Your task to perform on an android device: Open eBay Image 0: 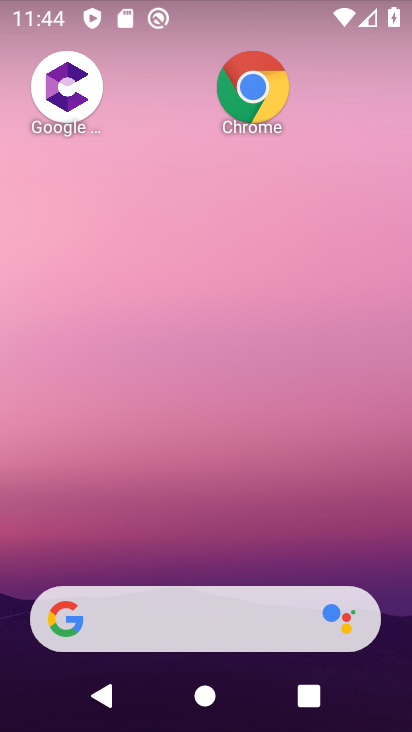
Step 0: click (256, 87)
Your task to perform on an android device: Open eBay Image 1: 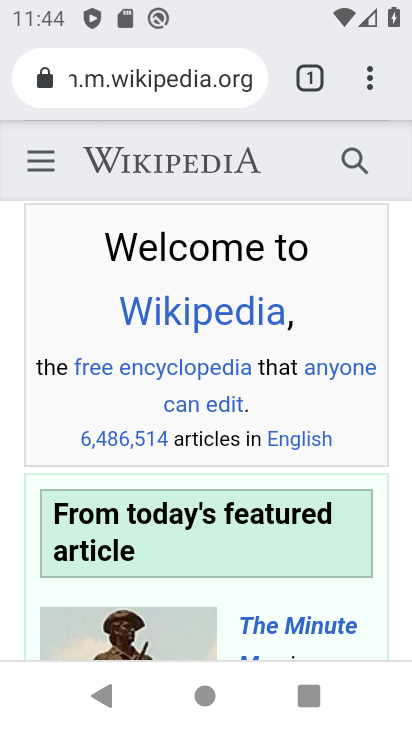
Step 1: click (369, 83)
Your task to perform on an android device: Open eBay Image 2: 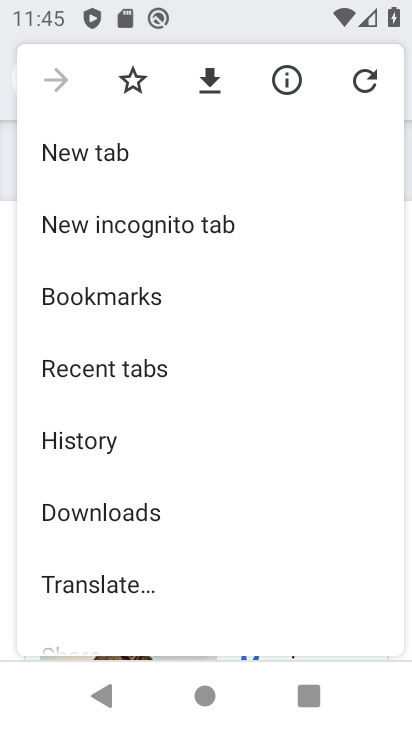
Step 2: click (72, 150)
Your task to perform on an android device: Open eBay Image 3: 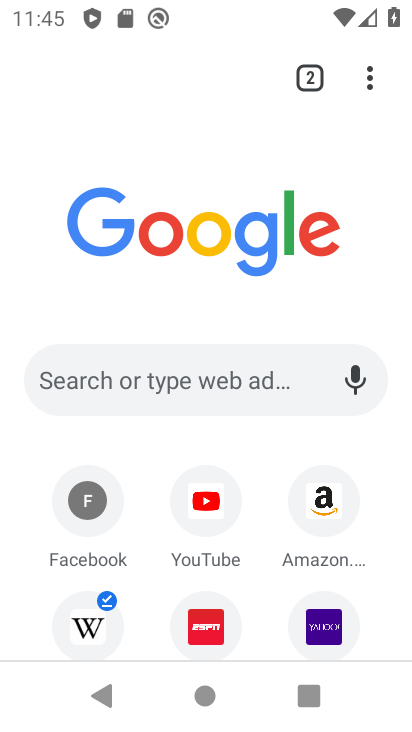
Step 3: drag from (142, 534) to (148, 120)
Your task to perform on an android device: Open eBay Image 4: 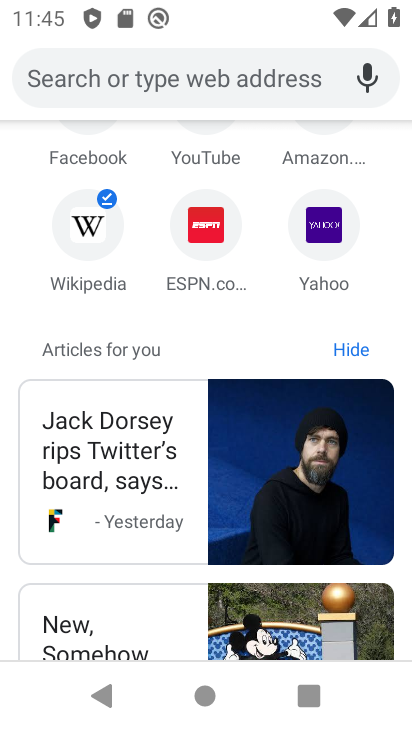
Step 4: drag from (138, 254) to (146, 637)
Your task to perform on an android device: Open eBay Image 5: 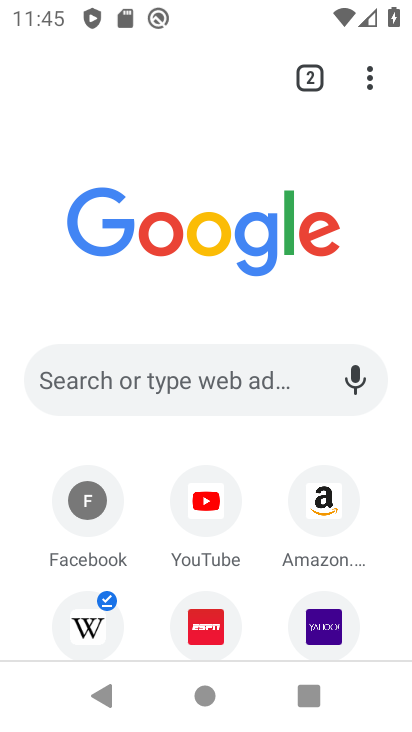
Step 5: click (189, 372)
Your task to perform on an android device: Open eBay Image 6: 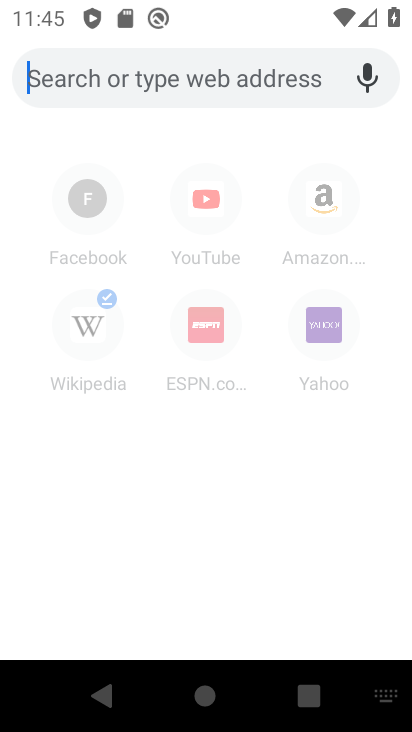
Step 6: type "ebay"
Your task to perform on an android device: Open eBay Image 7: 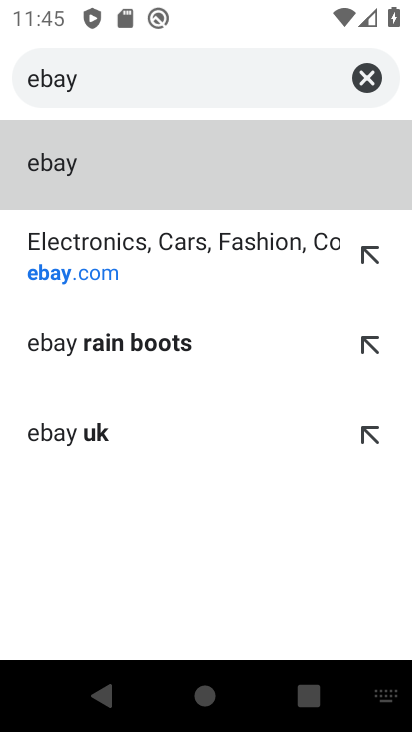
Step 7: click (44, 169)
Your task to perform on an android device: Open eBay Image 8: 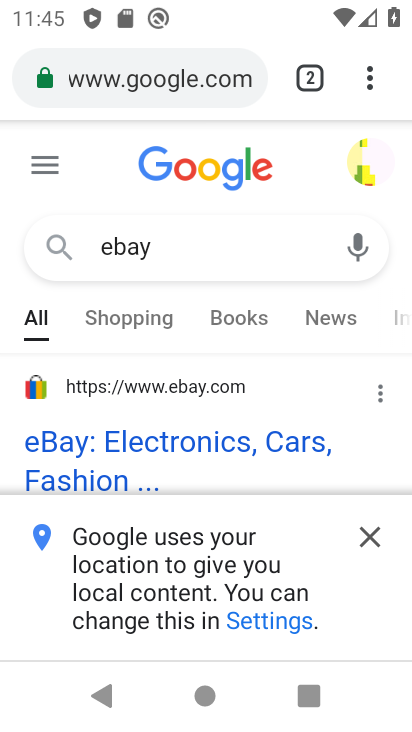
Step 8: click (188, 444)
Your task to perform on an android device: Open eBay Image 9: 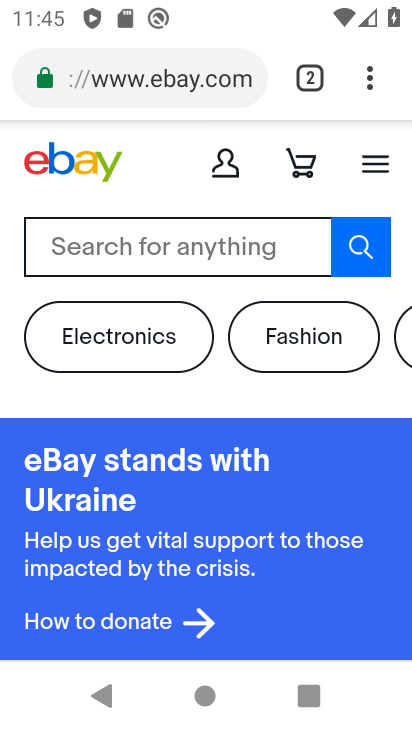
Step 9: task complete